Your task to perform on an android device: Go to Maps Image 0: 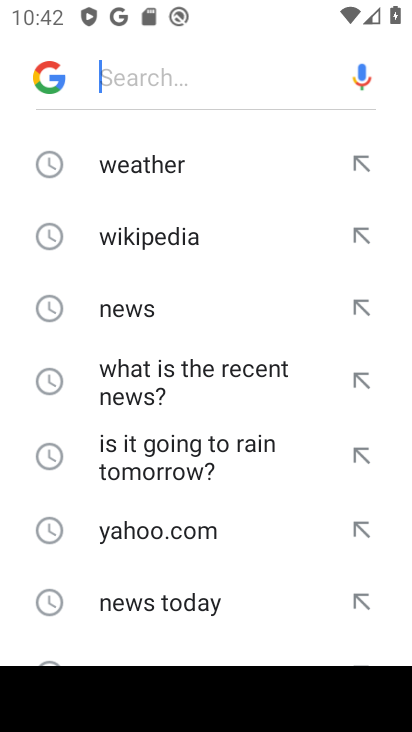
Step 0: press home button
Your task to perform on an android device: Go to Maps Image 1: 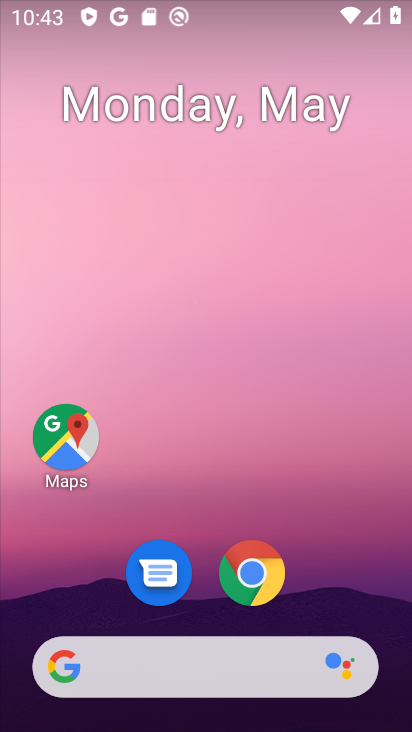
Step 1: click (71, 452)
Your task to perform on an android device: Go to Maps Image 2: 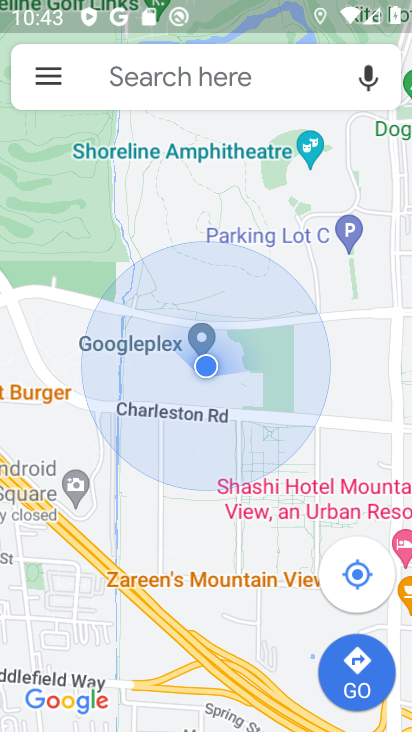
Step 2: task complete